Your task to perform on an android device: turn on bluetooth scan Image 0: 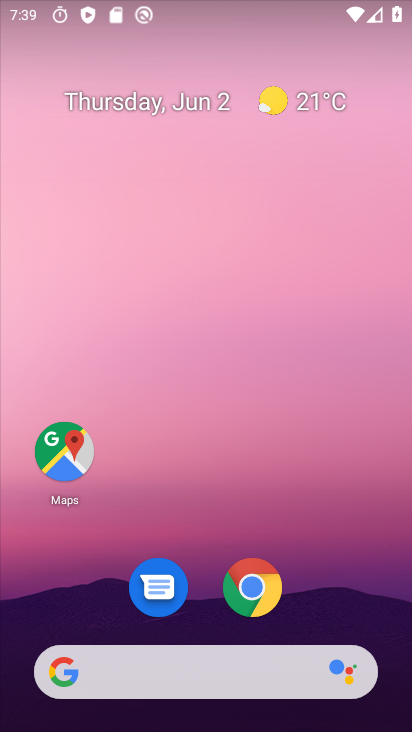
Step 0: drag from (348, 642) to (339, 15)
Your task to perform on an android device: turn on bluetooth scan Image 1: 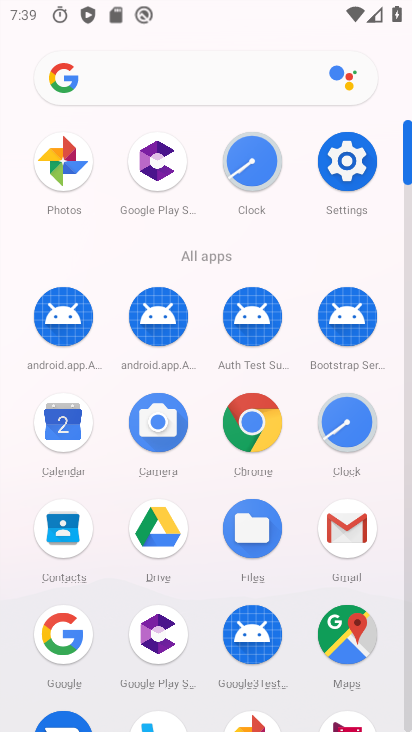
Step 1: click (348, 166)
Your task to perform on an android device: turn on bluetooth scan Image 2: 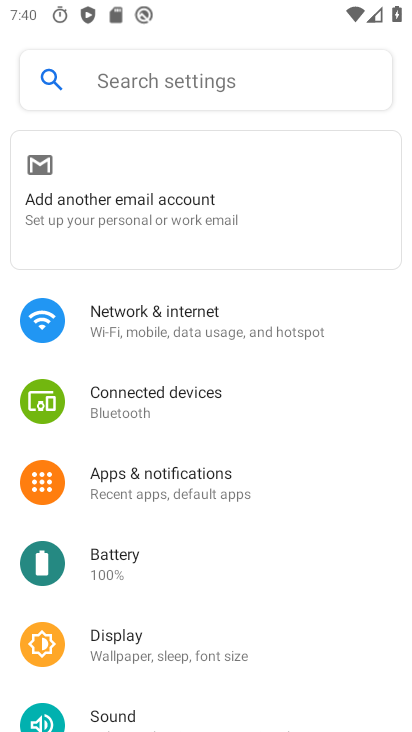
Step 2: drag from (292, 610) to (242, 151)
Your task to perform on an android device: turn on bluetooth scan Image 3: 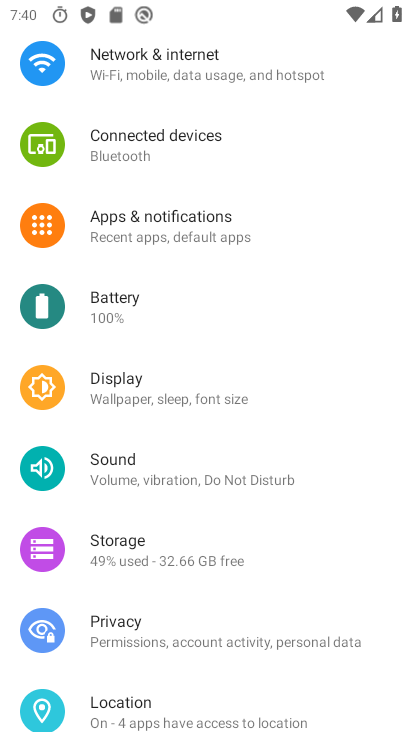
Step 3: drag from (287, 576) to (239, 231)
Your task to perform on an android device: turn on bluetooth scan Image 4: 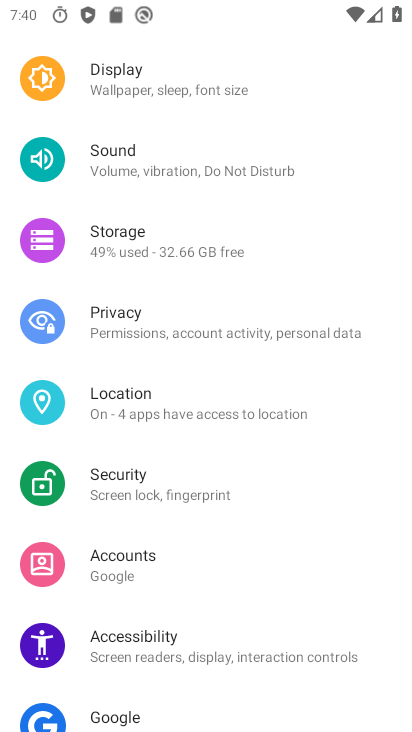
Step 4: click (139, 403)
Your task to perform on an android device: turn on bluetooth scan Image 5: 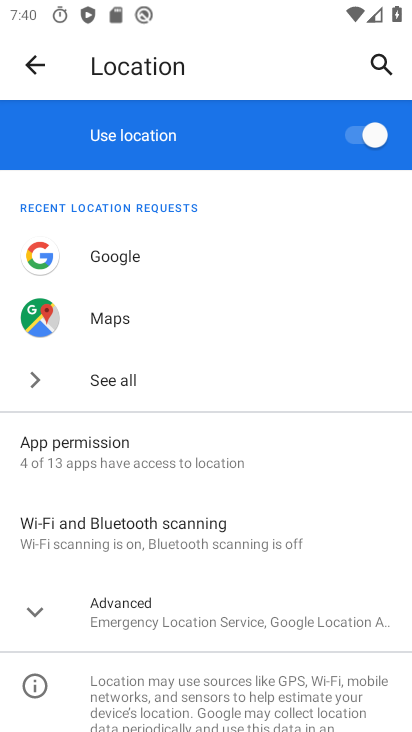
Step 5: click (130, 537)
Your task to perform on an android device: turn on bluetooth scan Image 6: 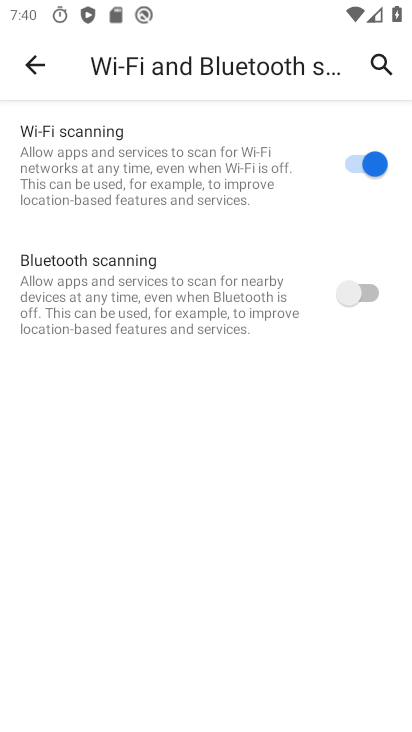
Step 6: click (369, 288)
Your task to perform on an android device: turn on bluetooth scan Image 7: 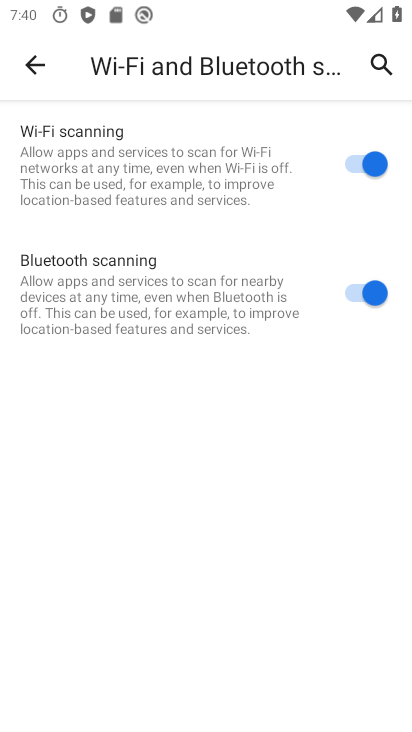
Step 7: task complete